Your task to perform on an android device: Open the Play Movies app and select the watchlist tab. Image 0: 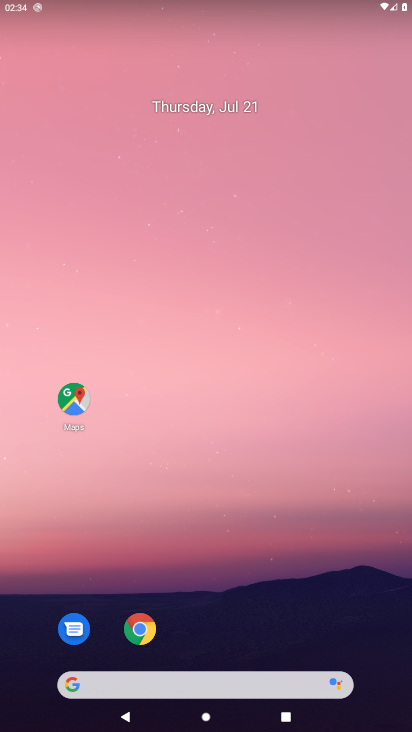
Step 0: drag from (21, 663) to (243, 0)
Your task to perform on an android device: Open the Play Movies app and select the watchlist tab. Image 1: 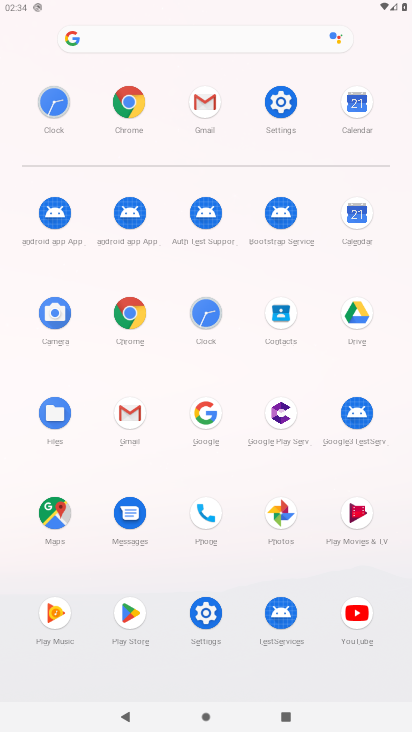
Step 1: click (351, 521)
Your task to perform on an android device: Open the Play Movies app and select the watchlist tab. Image 2: 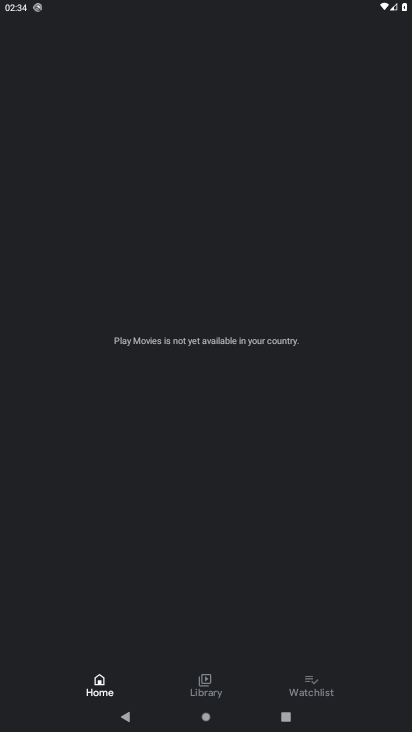
Step 2: click (290, 690)
Your task to perform on an android device: Open the Play Movies app and select the watchlist tab. Image 3: 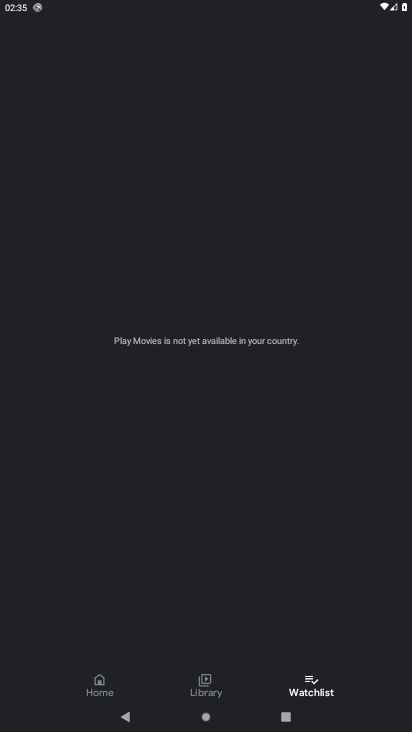
Step 3: task complete